Your task to perform on an android device: clear history in the chrome app Image 0: 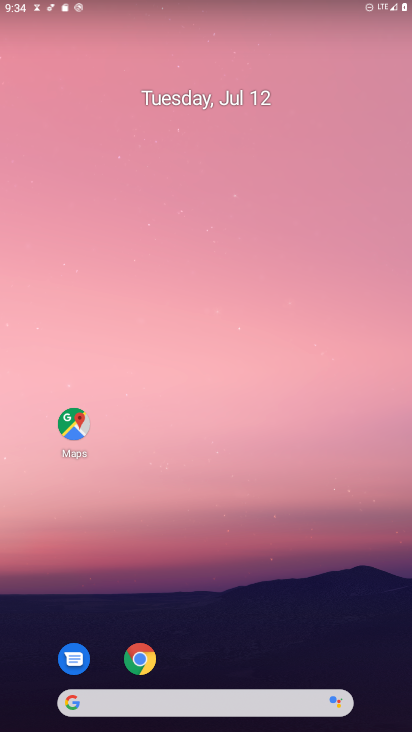
Step 0: click (140, 660)
Your task to perform on an android device: clear history in the chrome app Image 1: 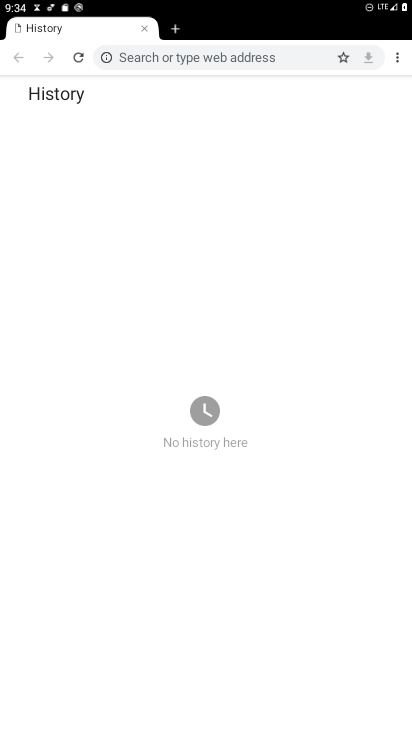
Step 1: click (396, 57)
Your task to perform on an android device: clear history in the chrome app Image 2: 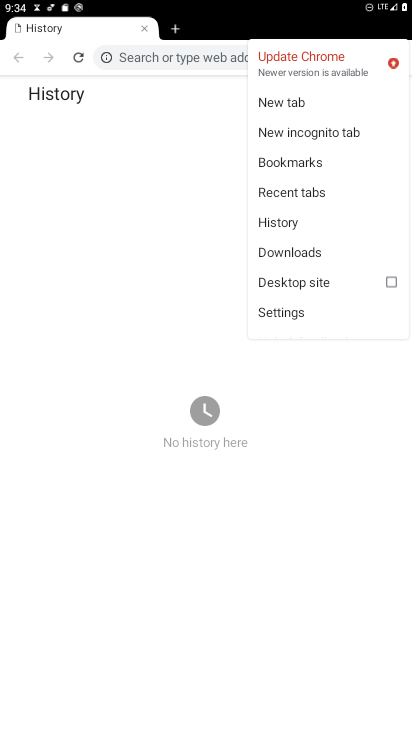
Step 2: click (288, 223)
Your task to perform on an android device: clear history in the chrome app Image 3: 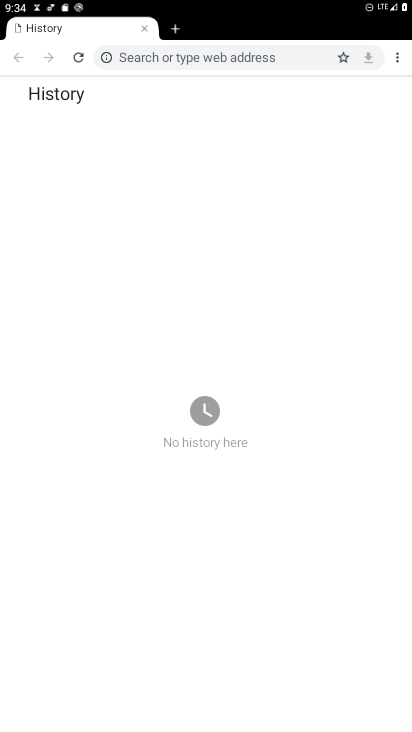
Step 3: task complete